Your task to perform on an android device: turn off improve location accuracy Image 0: 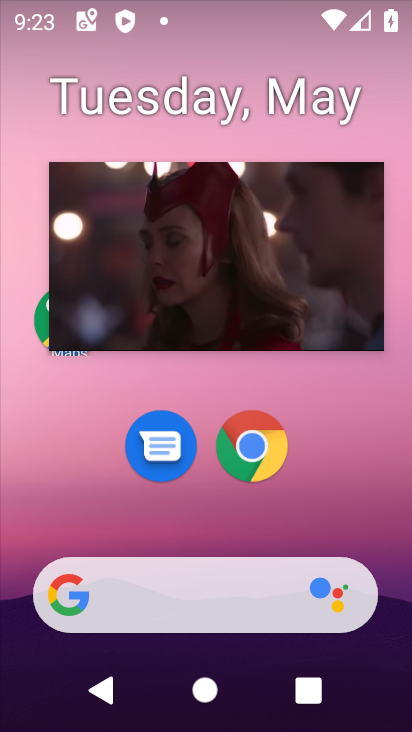
Step 0: drag from (218, 269) to (154, 726)
Your task to perform on an android device: turn off improve location accuracy Image 1: 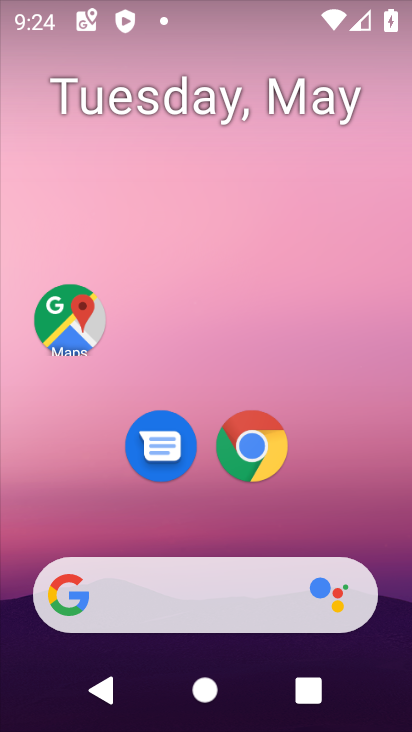
Step 1: drag from (176, 597) to (158, 215)
Your task to perform on an android device: turn off improve location accuracy Image 2: 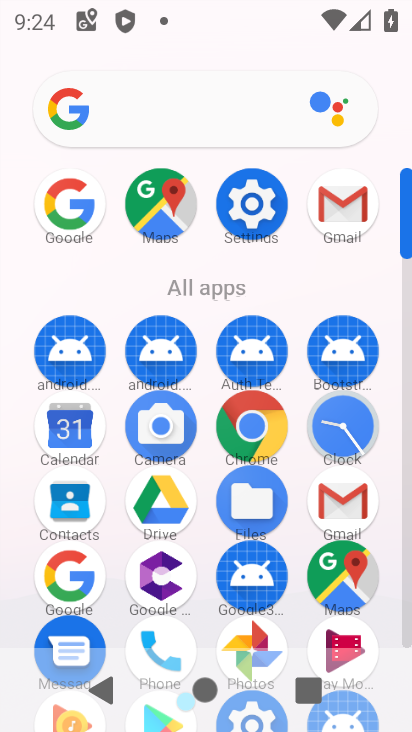
Step 2: click (254, 213)
Your task to perform on an android device: turn off improve location accuracy Image 3: 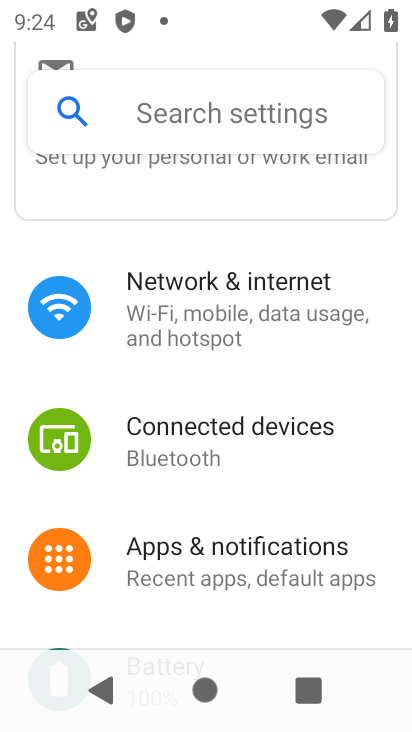
Step 3: drag from (228, 495) to (194, 164)
Your task to perform on an android device: turn off improve location accuracy Image 4: 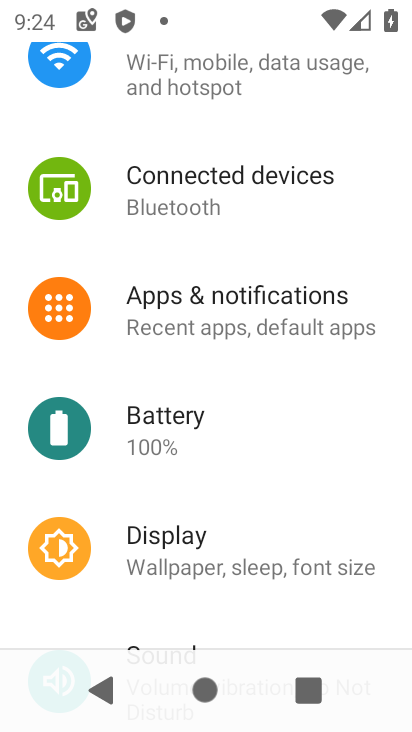
Step 4: drag from (232, 514) to (197, 174)
Your task to perform on an android device: turn off improve location accuracy Image 5: 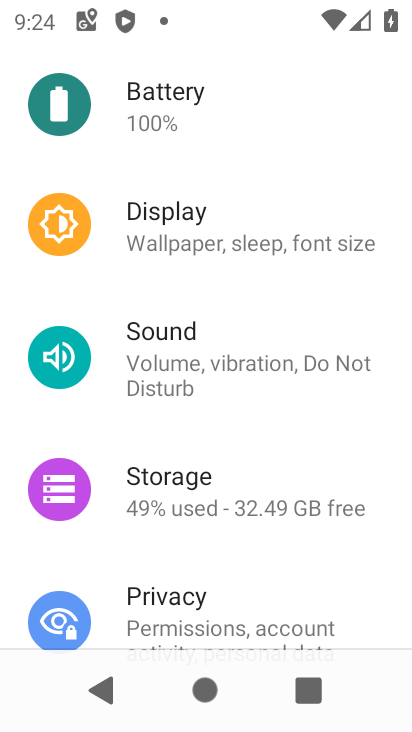
Step 5: drag from (227, 559) to (163, 146)
Your task to perform on an android device: turn off improve location accuracy Image 6: 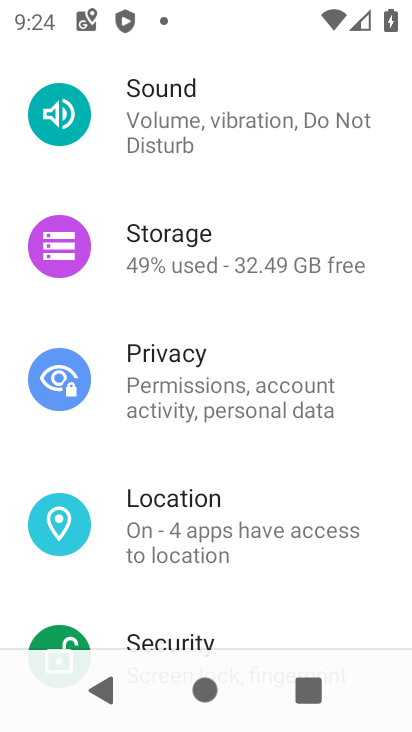
Step 6: click (166, 549)
Your task to perform on an android device: turn off improve location accuracy Image 7: 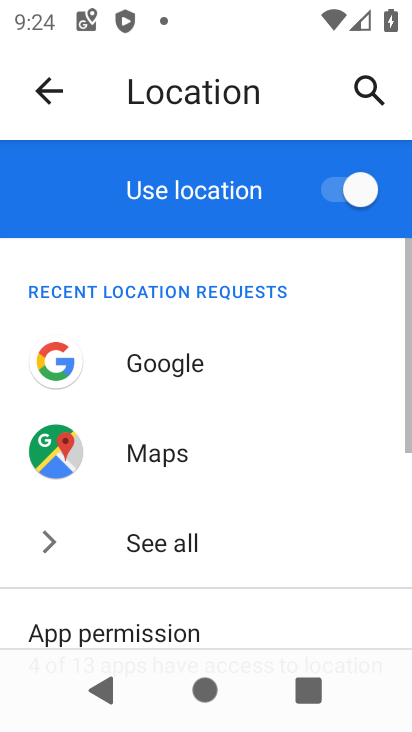
Step 7: drag from (220, 554) to (171, 83)
Your task to perform on an android device: turn off improve location accuracy Image 8: 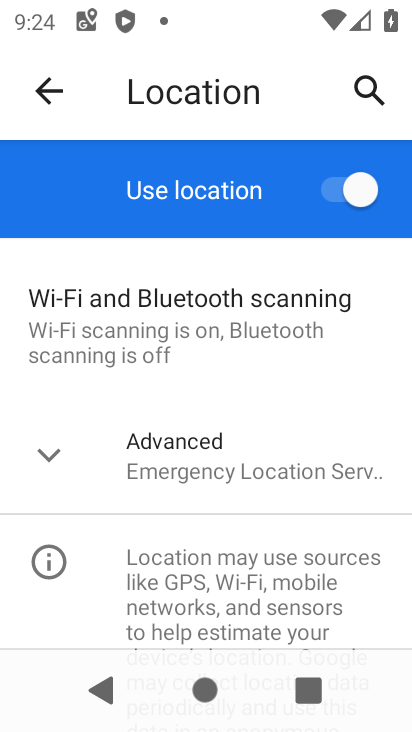
Step 8: click (153, 449)
Your task to perform on an android device: turn off improve location accuracy Image 9: 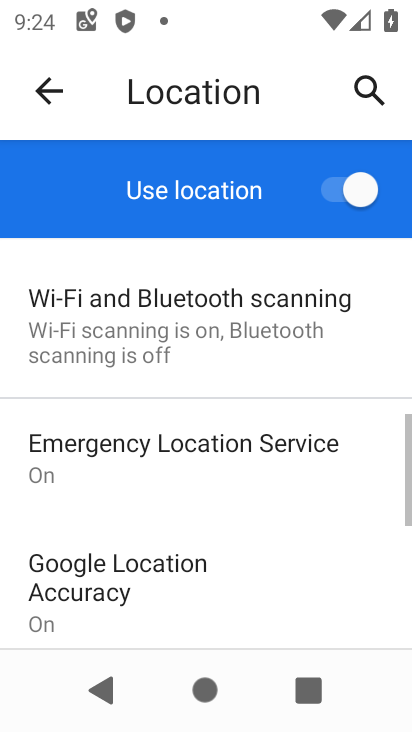
Step 9: drag from (223, 588) to (202, 278)
Your task to perform on an android device: turn off improve location accuracy Image 10: 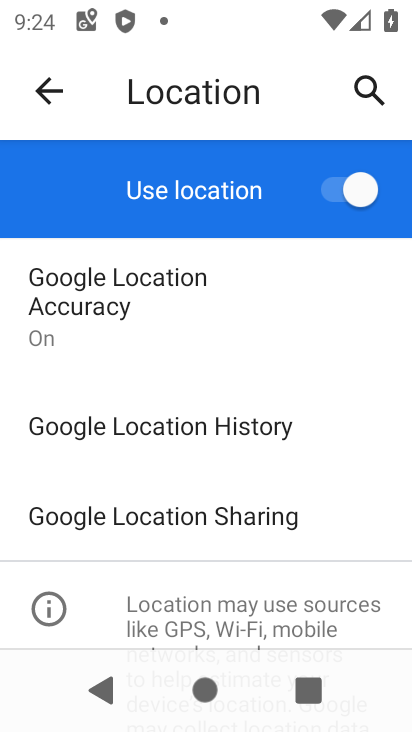
Step 10: click (169, 296)
Your task to perform on an android device: turn off improve location accuracy Image 11: 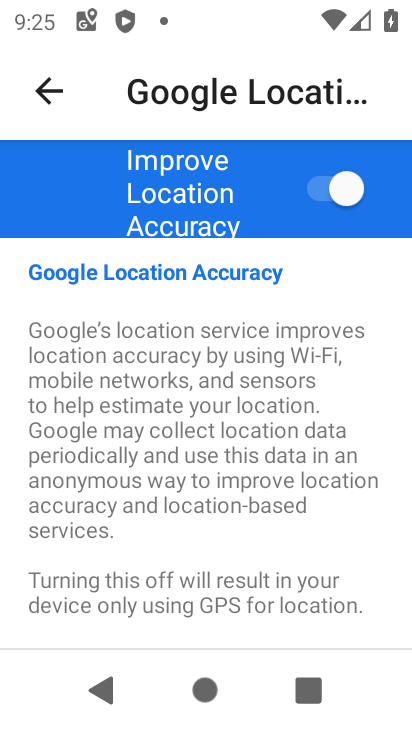
Step 11: click (329, 181)
Your task to perform on an android device: turn off improve location accuracy Image 12: 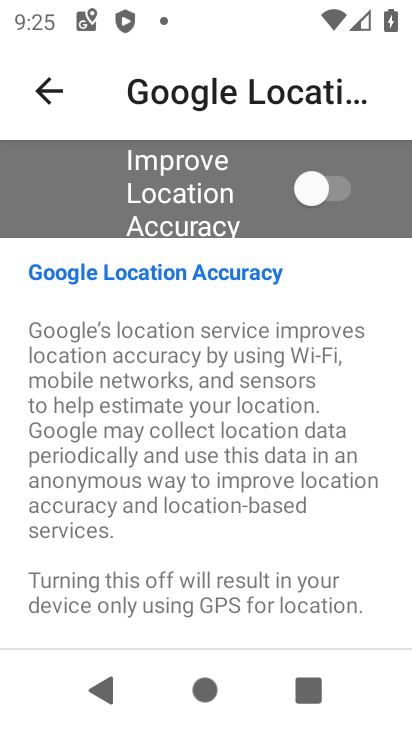
Step 12: task complete